Your task to perform on an android device: turn on bluetooth scan Image 0: 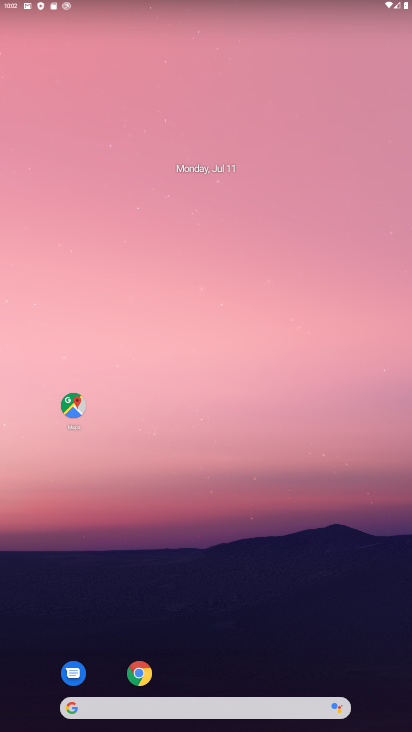
Step 0: drag from (228, 665) to (408, 137)
Your task to perform on an android device: turn on bluetooth scan Image 1: 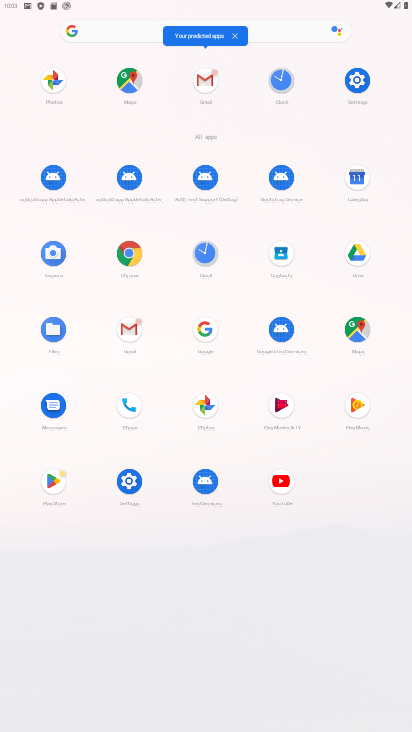
Step 1: click (345, 77)
Your task to perform on an android device: turn on bluetooth scan Image 2: 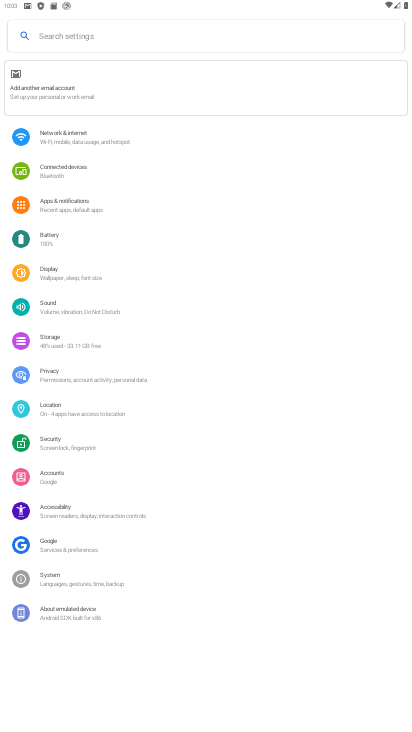
Step 2: click (144, 39)
Your task to perform on an android device: turn on bluetooth scan Image 3: 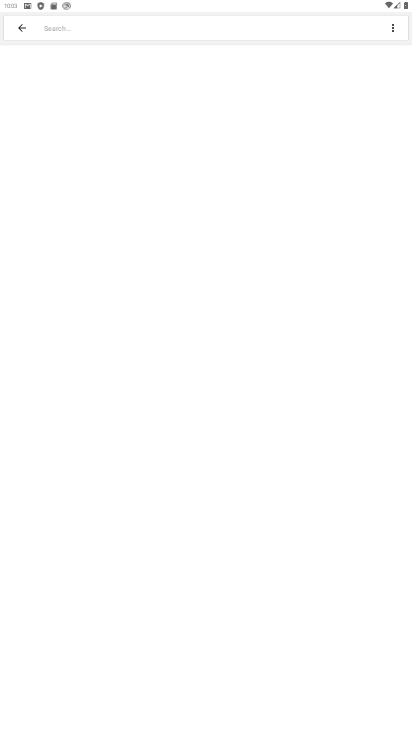
Step 3: type " bluetooth scan "
Your task to perform on an android device: turn on bluetooth scan Image 4: 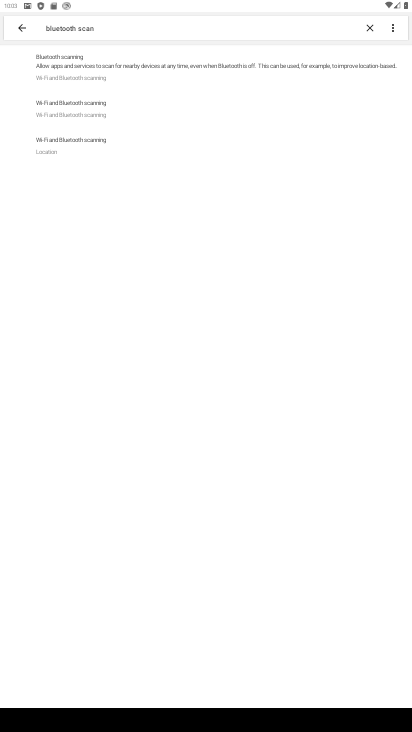
Step 4: click (108, 59)
Your task to perform on an android device: turn on bluetooth scan Image 5: 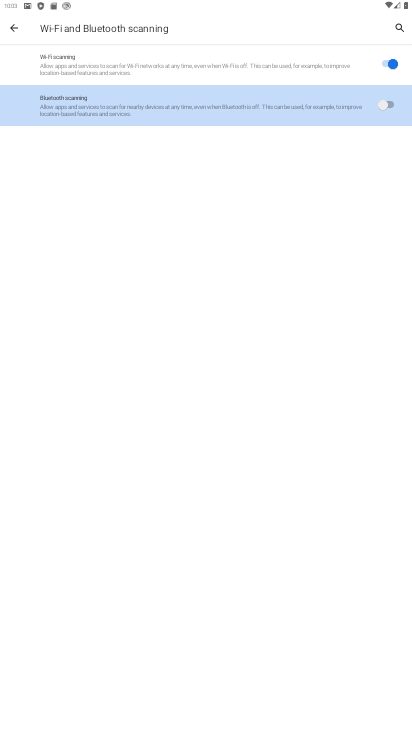
Step 5: click (377, 105)
Your task to perform on an android device: turn on bluetooth scan Image 6: 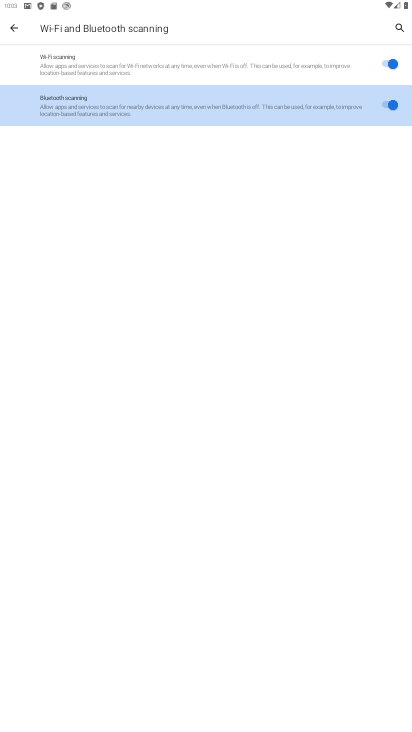
Step 6: task complete